Your task to perform on an android device: Go to network settings Image 0: 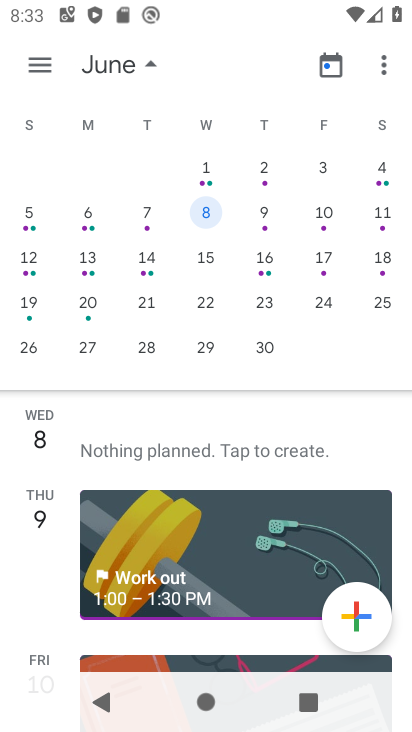
Step 0: press home button
Your task to perform on an android device: Go to network settings Image 1: 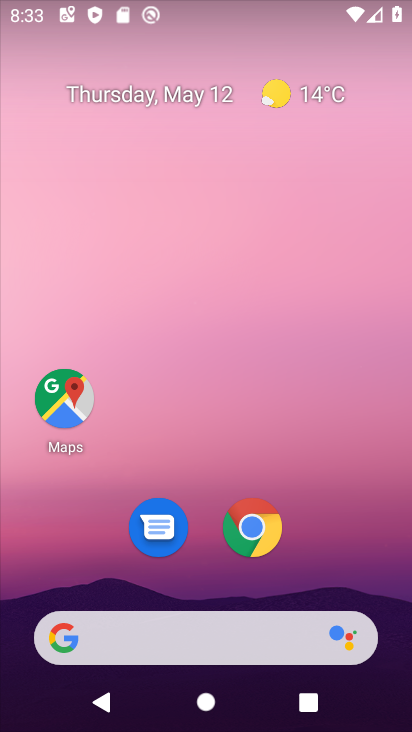
Step 1: drag from (325, 543) to (314, 116)
Your task to perform on an android device: Go to network settings Image 2: 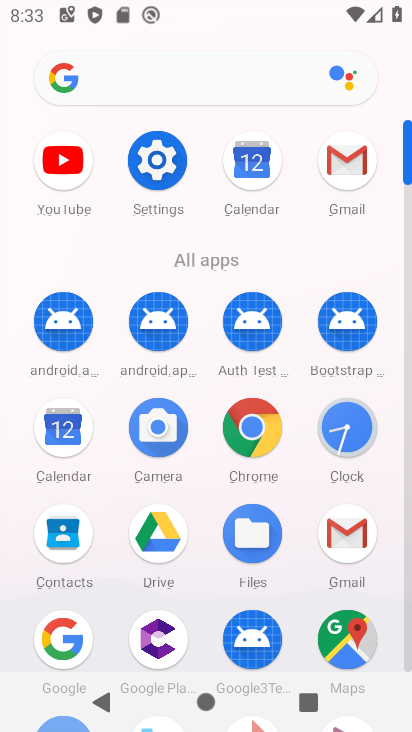
Step 2: click (181, 152)
Your task to perform on an android device: Go to network settings Image 3: 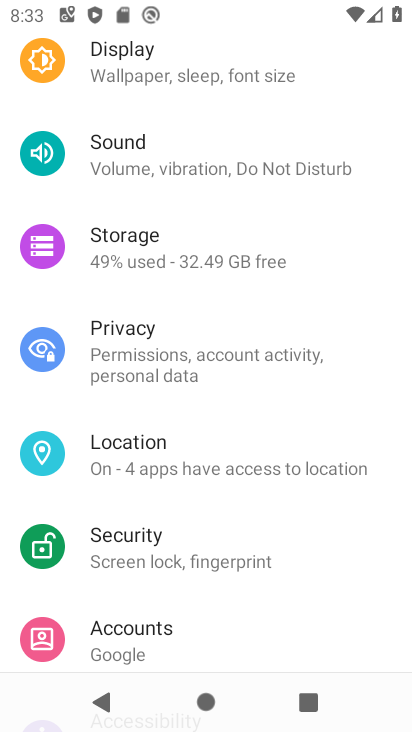
Step 3: drag from (252, 162) to (247, 448)
Your task to perform on an android device: Go to network settings Image 4: 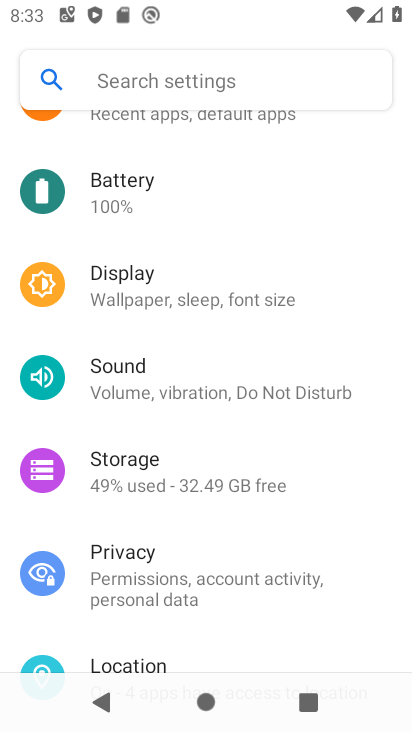
Step 4: drag from (160, 124) to (119, 461)
Your task to perform on an android device: Go to network settings Image 5: 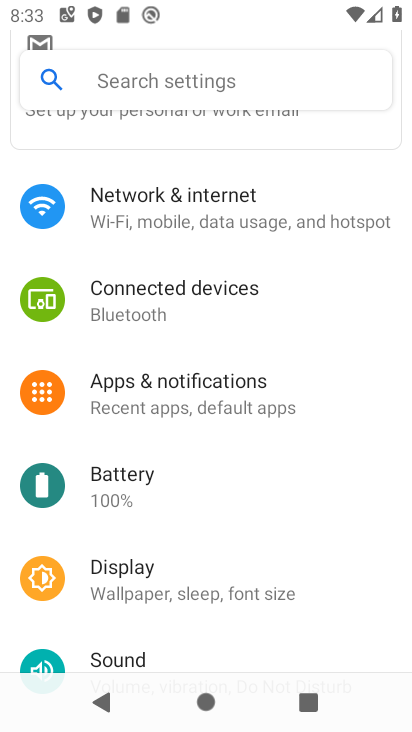
Step 5: drag from (168, 276) to (183, 514)
Your task to perform on an android device: Go to network settings Image 6: 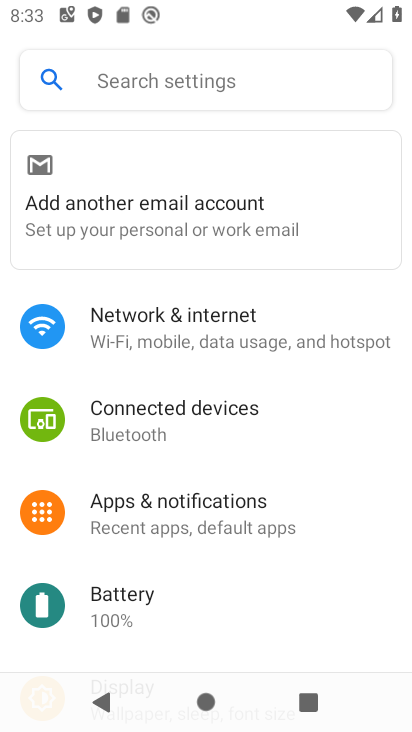
Step 6: click (175, 323)
Your task to perform on an android device: Go to network settings Image 7: 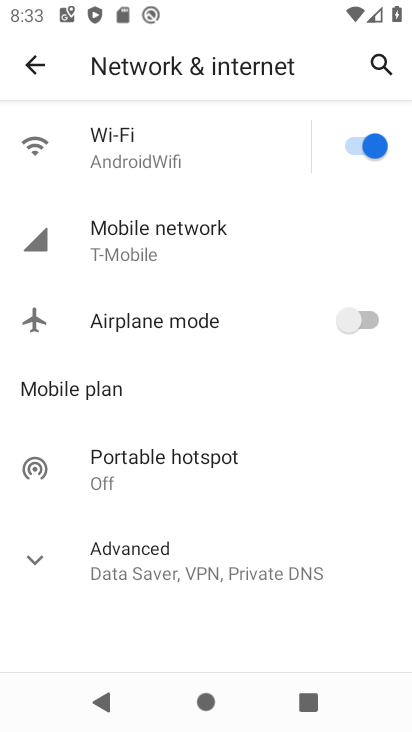
Step 7: task complete